Your task to perform on an android device: turn notification dots off Image 0: 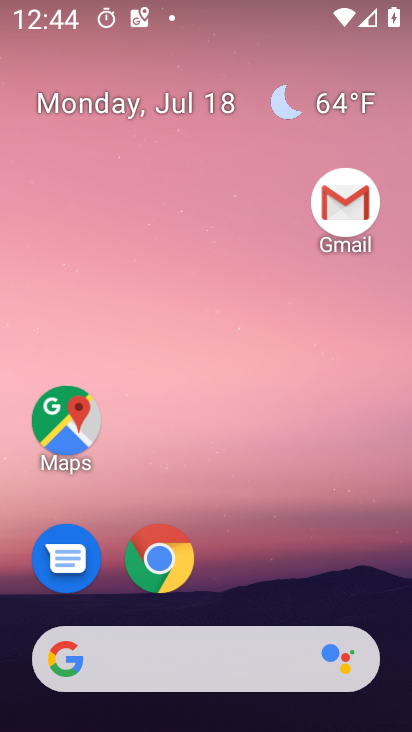
Step 0: drag from (276, 568) to (284, 96)
Your task to perform on an android device: turn notification dots off Image 1: 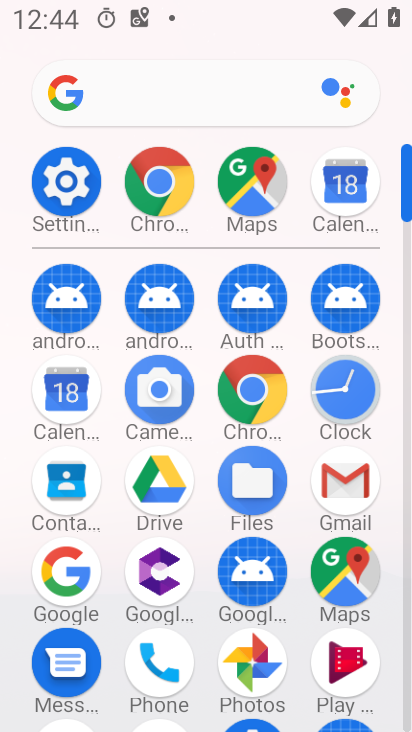
Step 1: click (60, 205)
Your task to perform on an android device: turn notification dots off Image 2: 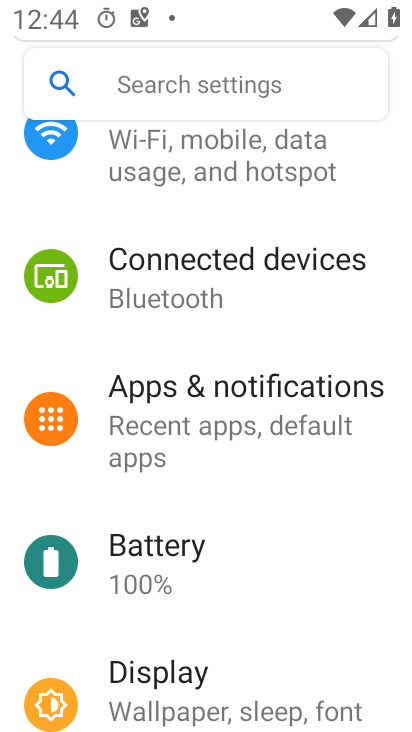
Step 2: click (265, 404)
Your task to perform on an android device: turn notification dots off Image 3: 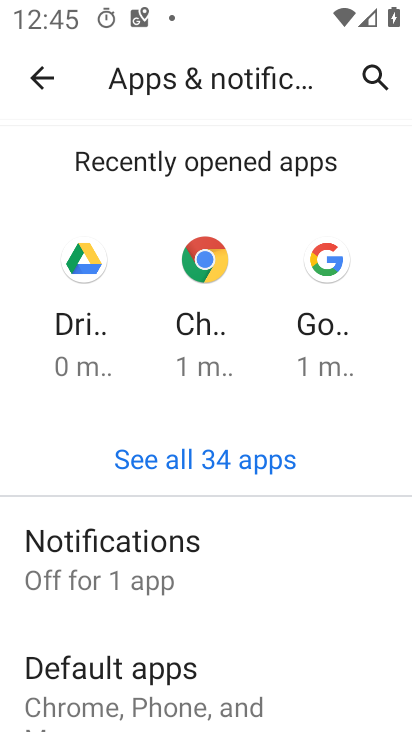
Step 3: click (214, 574)
Your task to perform on an android device: turn notification dots off Image 4: 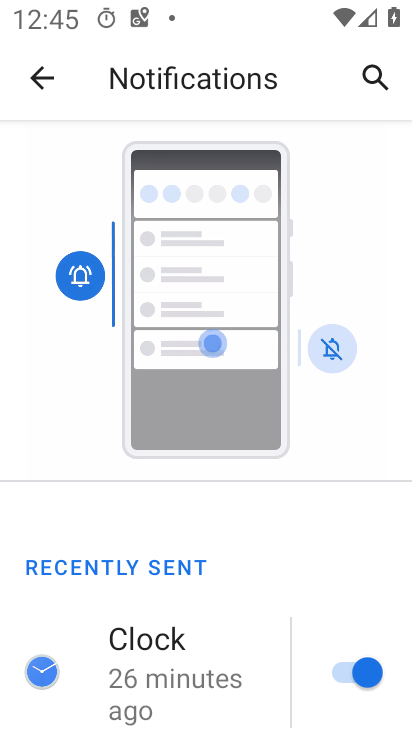
Step 4: drag from (284, 569) to (296, 487)
Your task to perform on an android device: turn notification dots off Image 5: 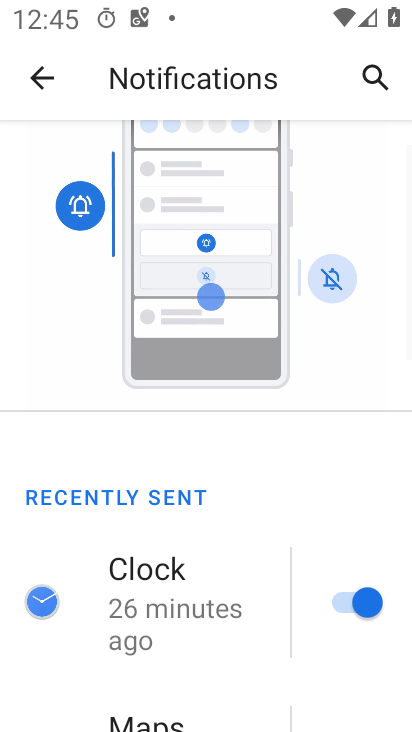
Step 5: drag from (249, 637) to (261, 533)
Your task to perform on an android device: turn notification dots off Image 6: 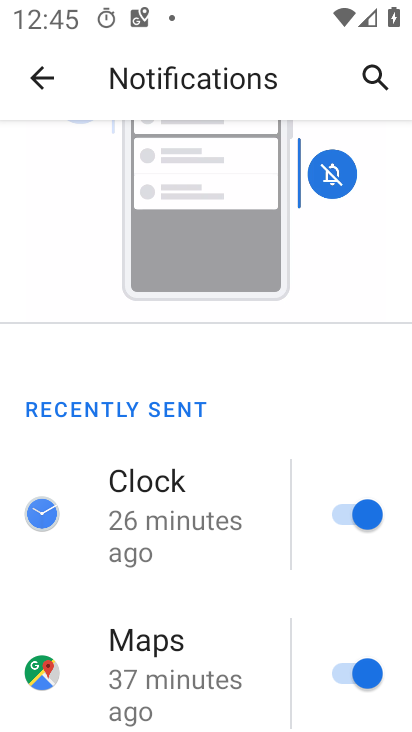
Step 6: drag from (245, 629) to (266, 497)
Your task to perform on an android device: turn notification dots off Image 7: 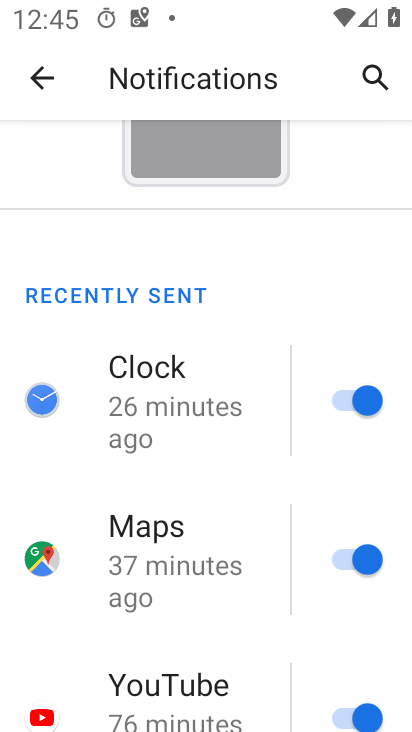
Step 7: drag from (250, 619) to (256, 521)
Your task to perform on an android device: turn notification dots off Image 8: 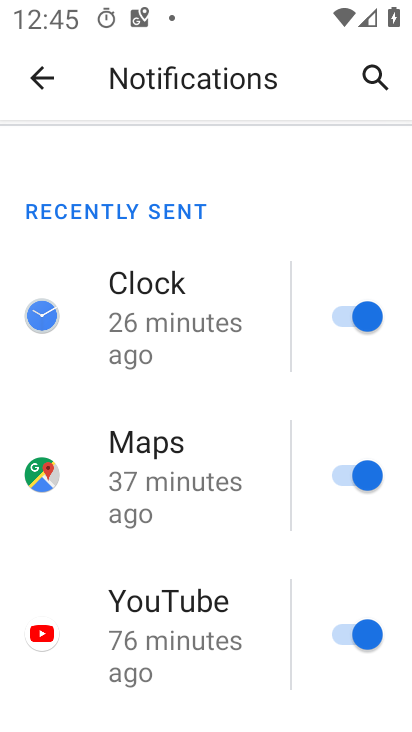
Step 8: drag from (251, 633) to (268, 525)
Your task to perform on an android device: turn notification dots off Image 9: 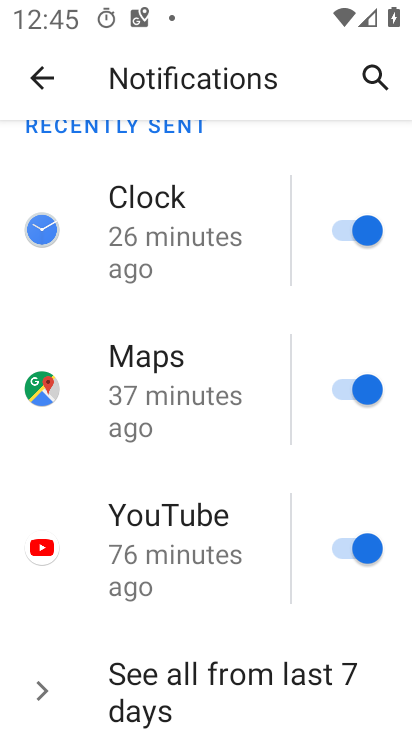
Step 9: drag from (229, 642) to (258, 479)
Your task to perform on an android device: turn notification dots off Image 10: 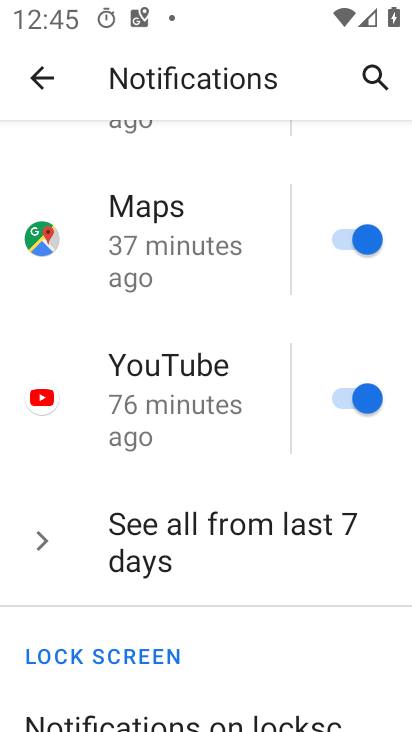
Step 10: drag from (247, 676) to (258, 559)
Your task to perform on an android device: turn notification dots off Image 11: 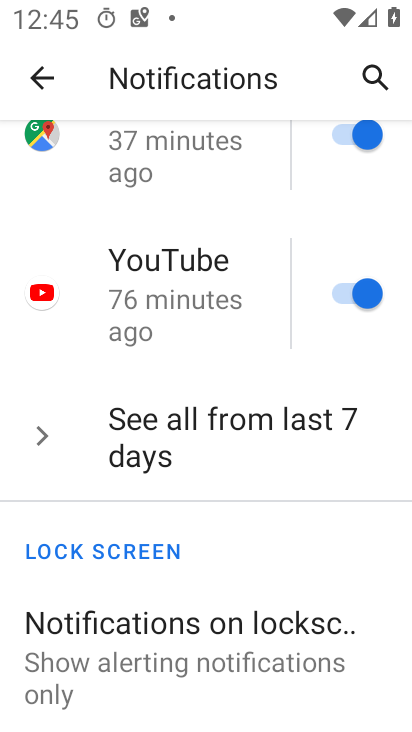
Step 11: drag from (380, 677) to (376, 488)
Your task to perform on an android device: turn notification dots off Image 12: 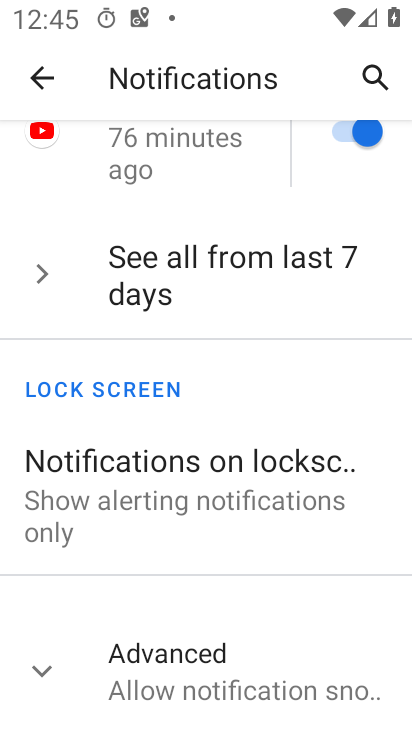
Step 12: click (356, 659)
Your task to perform on an android device: turn notification dots off Image 13: 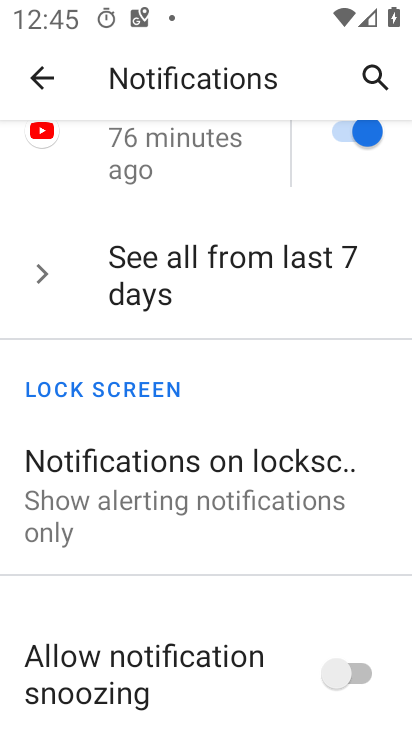
Step 13: task complete